Your task to perform on an android device: find photos in the google photos app Image 0: 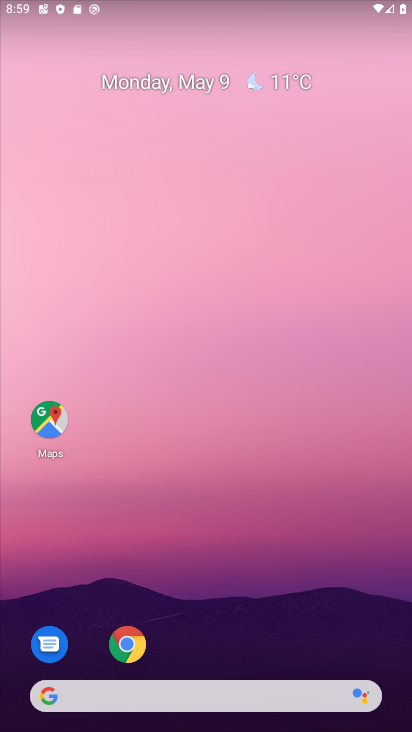
Step 0: drag from (229, 683) to (264, 38)
Your task to perform on an android device: find photos in the google photos app Image 1: 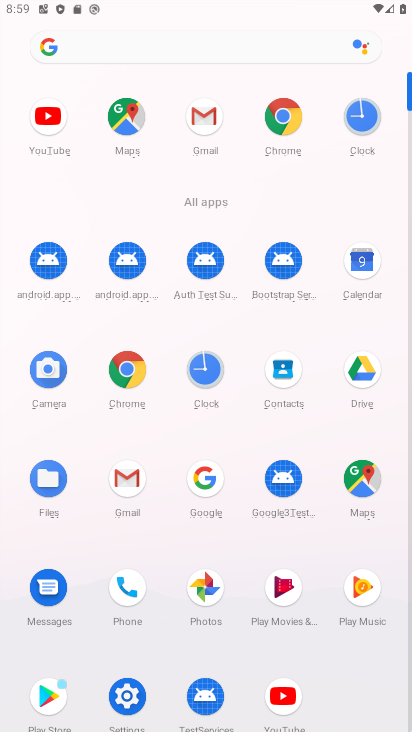
Step 1: click (200, 591)
Your task to perform on an android device: find photos in the google photos app Image 2: 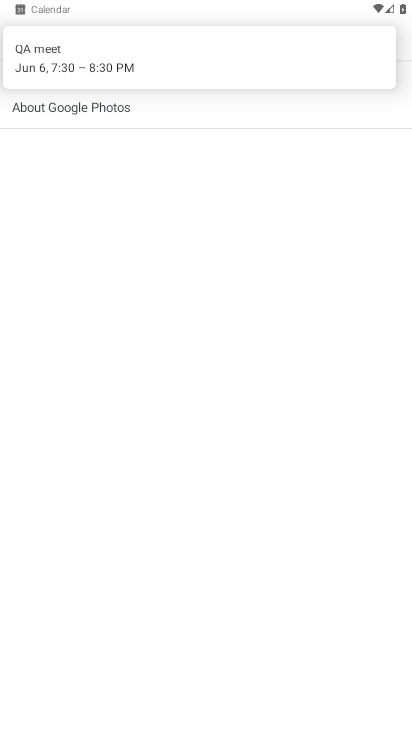
Step 2: click (31, 24)
Your task to perform on an android device: find photos in the google photos app Image 3: 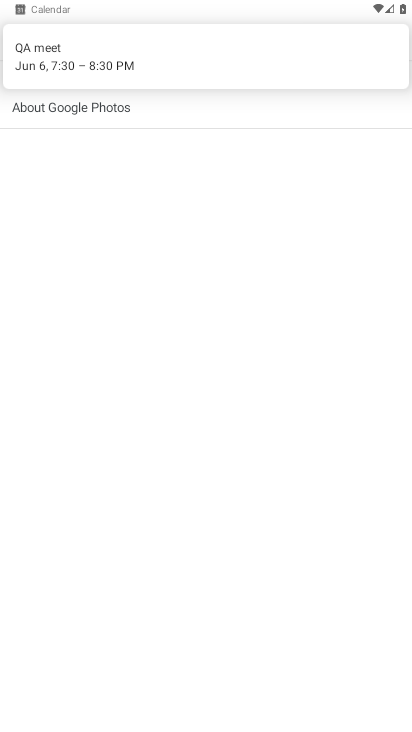
Step 3: drag from (70, 172) to (95, 384)
Your task to perform on an android device: find photos in the google photos app Image 4: 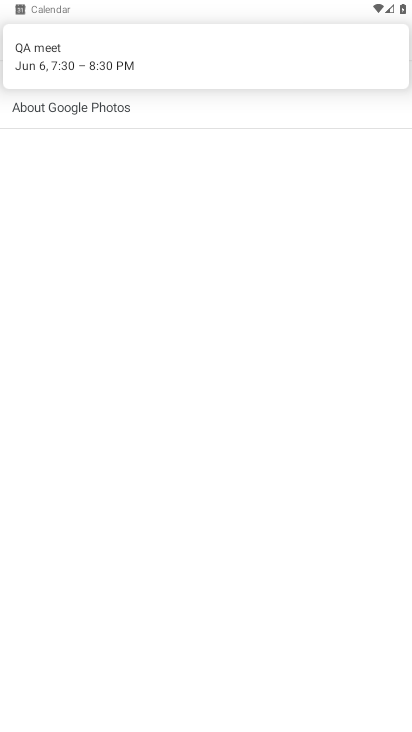
Step 4: drag from (194, 83) to (51, 12)
Your task to perform on an android device: find photos in the google photos app Image 5: 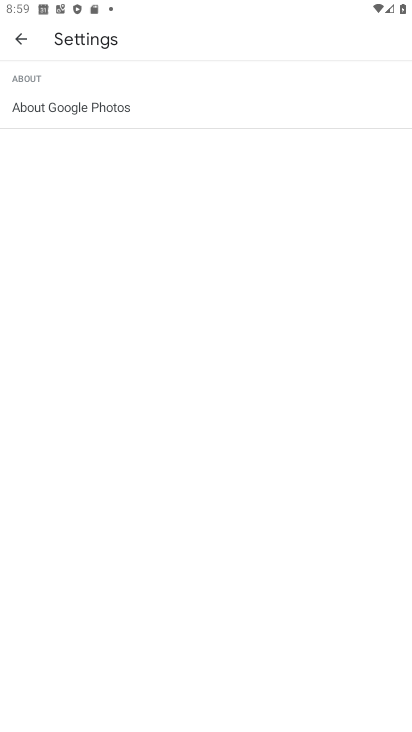
Step 5: click (22, 37)
Your task to perform on an android device: find photos in the google photos app Image 6: 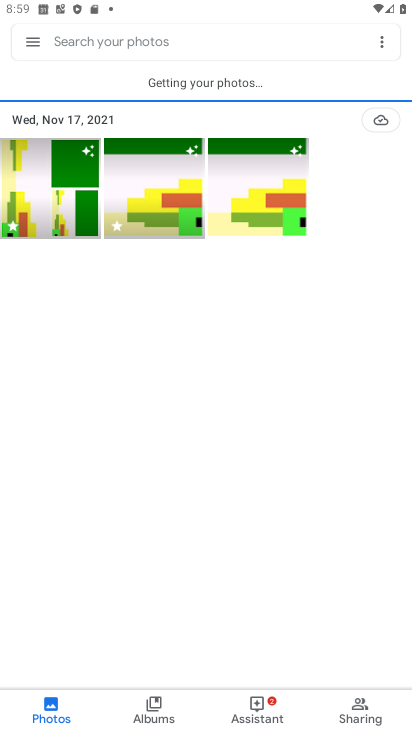
Step 6: task complete